Your task to perform on an android device: empty trash in the gmail app Image 0: 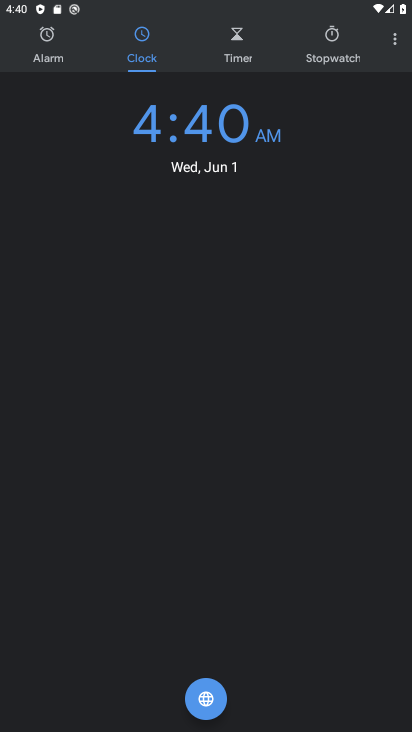
Step 0: press home button
Your task to perform on an android device: empty trash in the gmail app Image 1: 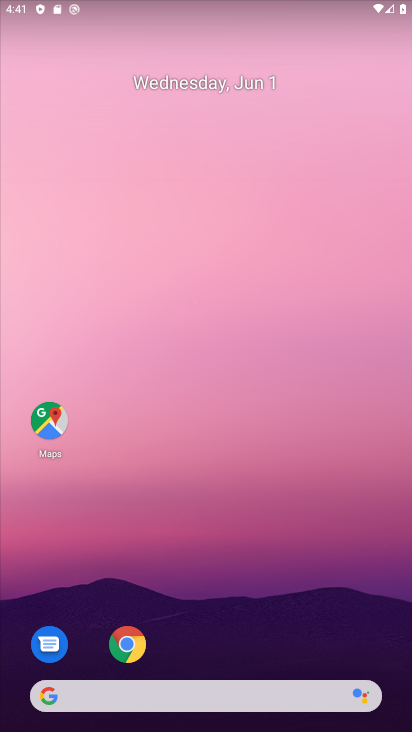
Step 1: drag from (179, 665) to (336, 116)
Your task to perform on an android device: empty trash in the gmail app Image 2: 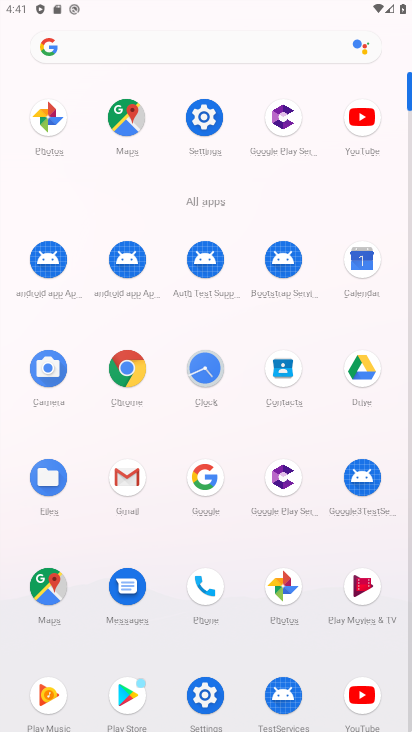
Step 2: click (139, 485)
Your task to perform on an android device: empty trash in the gmail app Image 3: 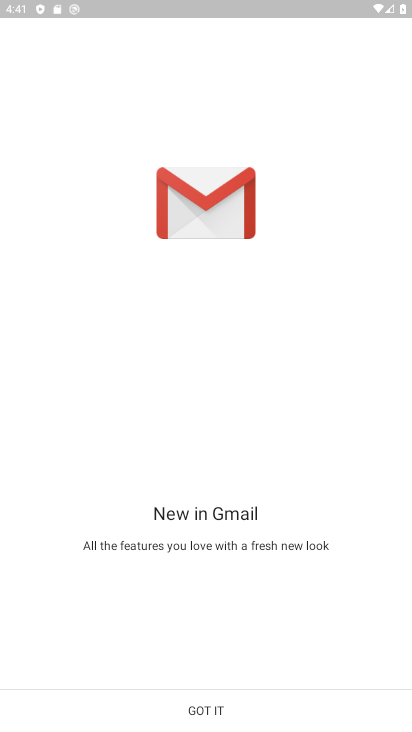
Step 3: click (250, 716)
Your task to perform on an android device: empty trash in the gmail app Image 4: 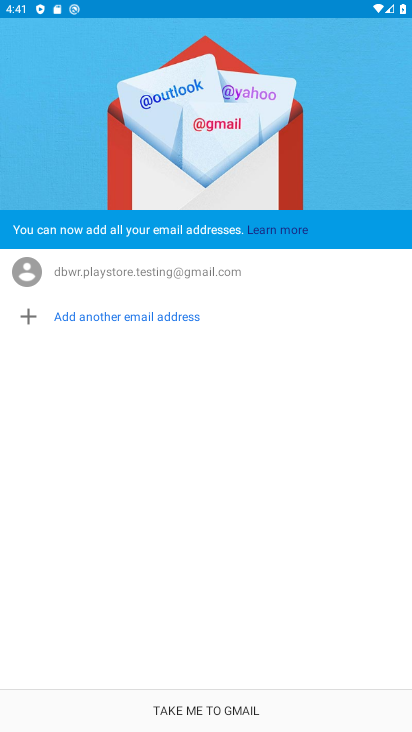
Step 4: click (250, 716)
Your task to perform on an android device: empty trash in the gmail app Image 5: 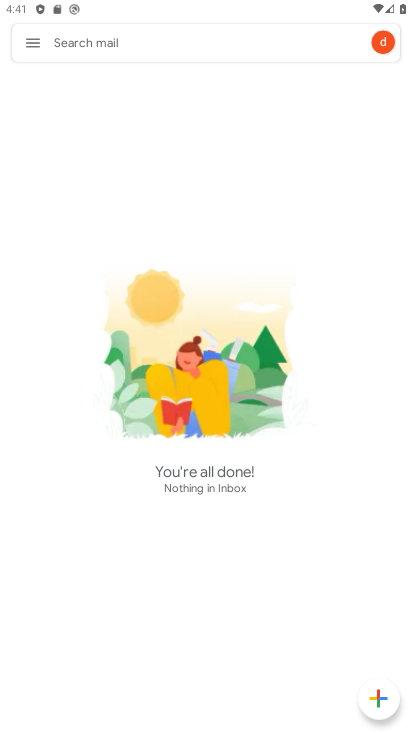
Step 5: click (43, 46)
Your task to perform on an android device: empty trash in the gmail app Image 6: 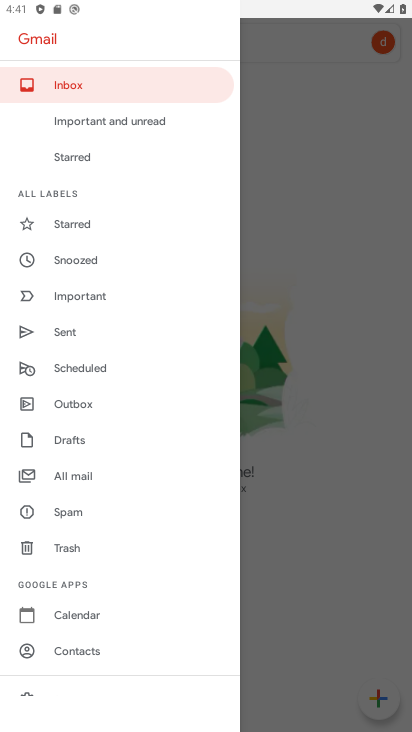
Step 6: click (101, 554)
Your task to perform on an android device: empty trash in the gmail app Image 7: 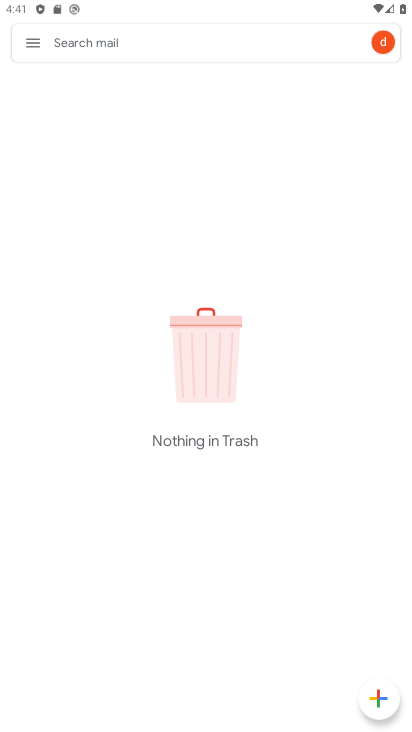
Step 7: task complete